Your task to perform on an android device: Find coffee shops on Maps Image 0: 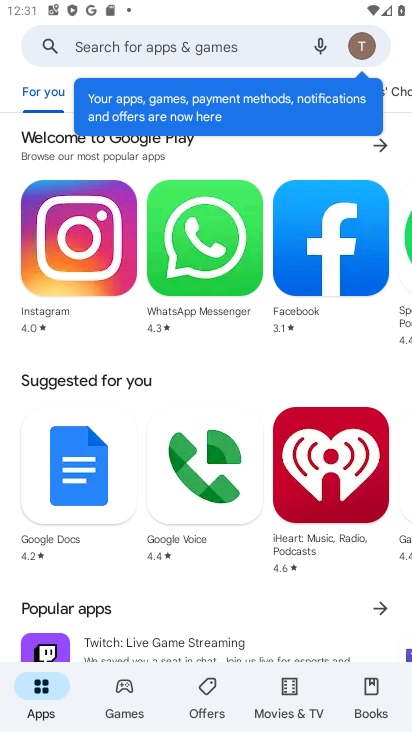
Step 0: press back button
Your task to perform on an android device: Find coffee shops on Maps Image 1: 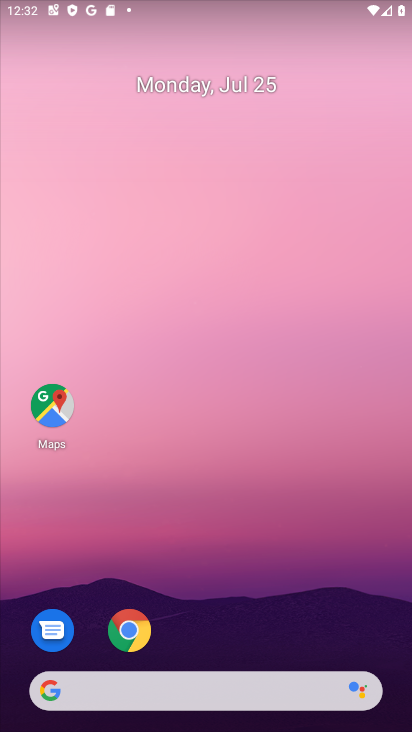
Step 1: click (54, 410)
Your task to perform on an android device: Find coffee shops on Maps Image 2: 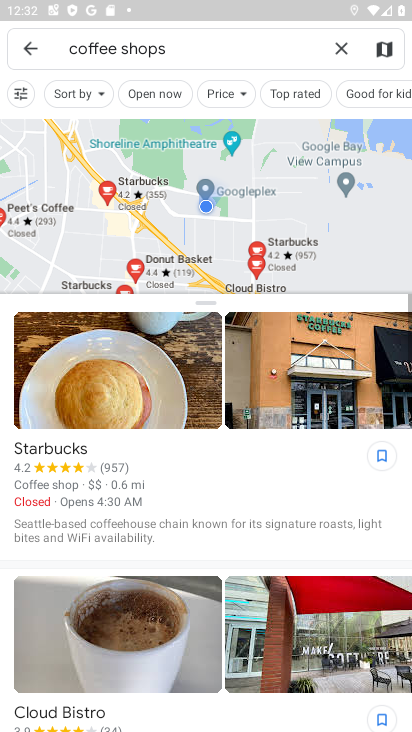
Step 2: task complete